Your task to perform on an android device: What's the weather going to be this weekend? Image 0: 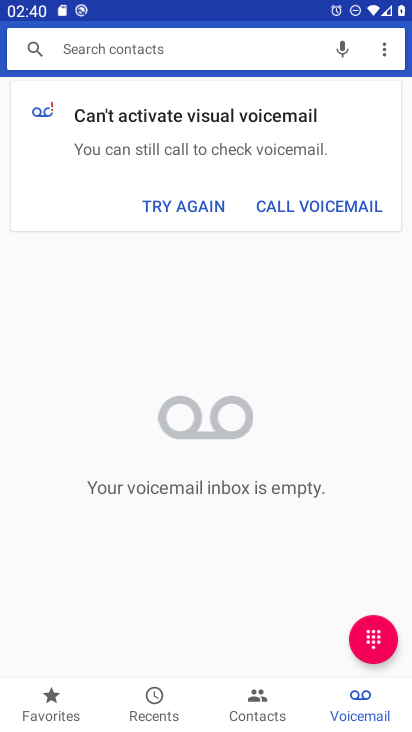
Step 0: press home button
Your task to perform on an android device: What's the weather going to be this weekend? Image 1: 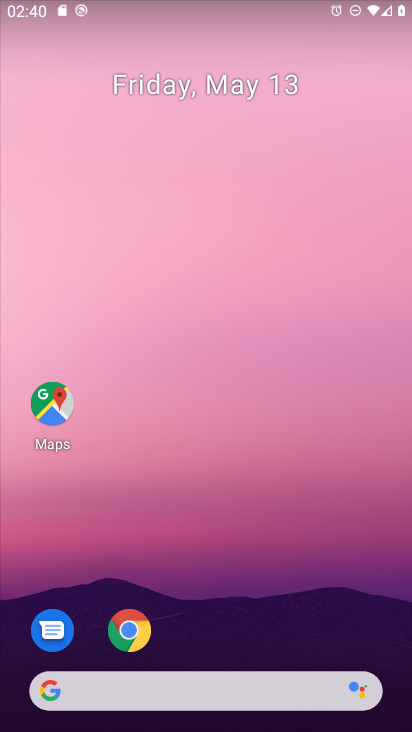
Step 1: drag from (234, 721) to (245, 265)
Your task to perform on an android device: What's the weather going to be this weekend? Image 2: 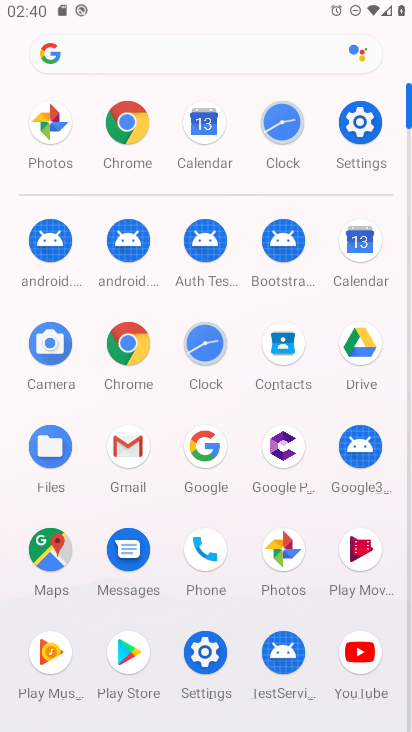
Step 2: click (162, 56)
Your task to perform on an android device: What's the weather going to be this weekend? Image 3: 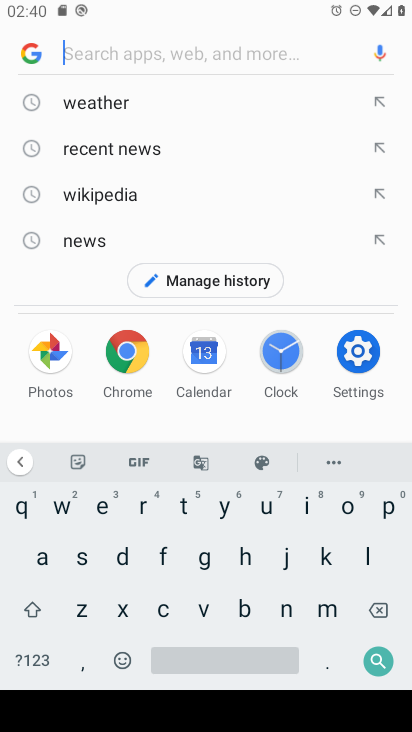
Step 3: click (107, 99)
Your task to perform on an android device: What's the weather going to be this weekend? Image 4: 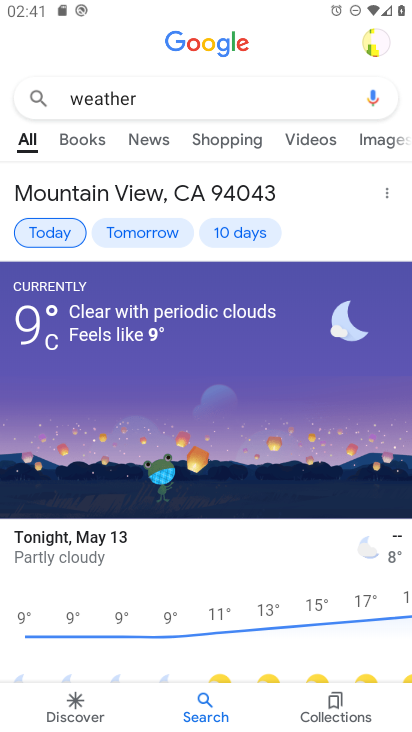
Step 4: click (239, 226)
Your task to perform on an android device: What's the weather going to be this weekend? Image 5: 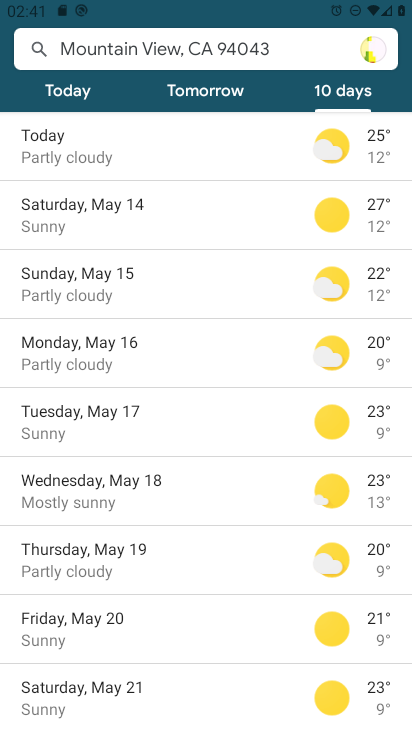
Step 5: task complete